Your task to perform on an android device: Add logitech g933 to the cart on bestbuy, then select checkout. Image 0: 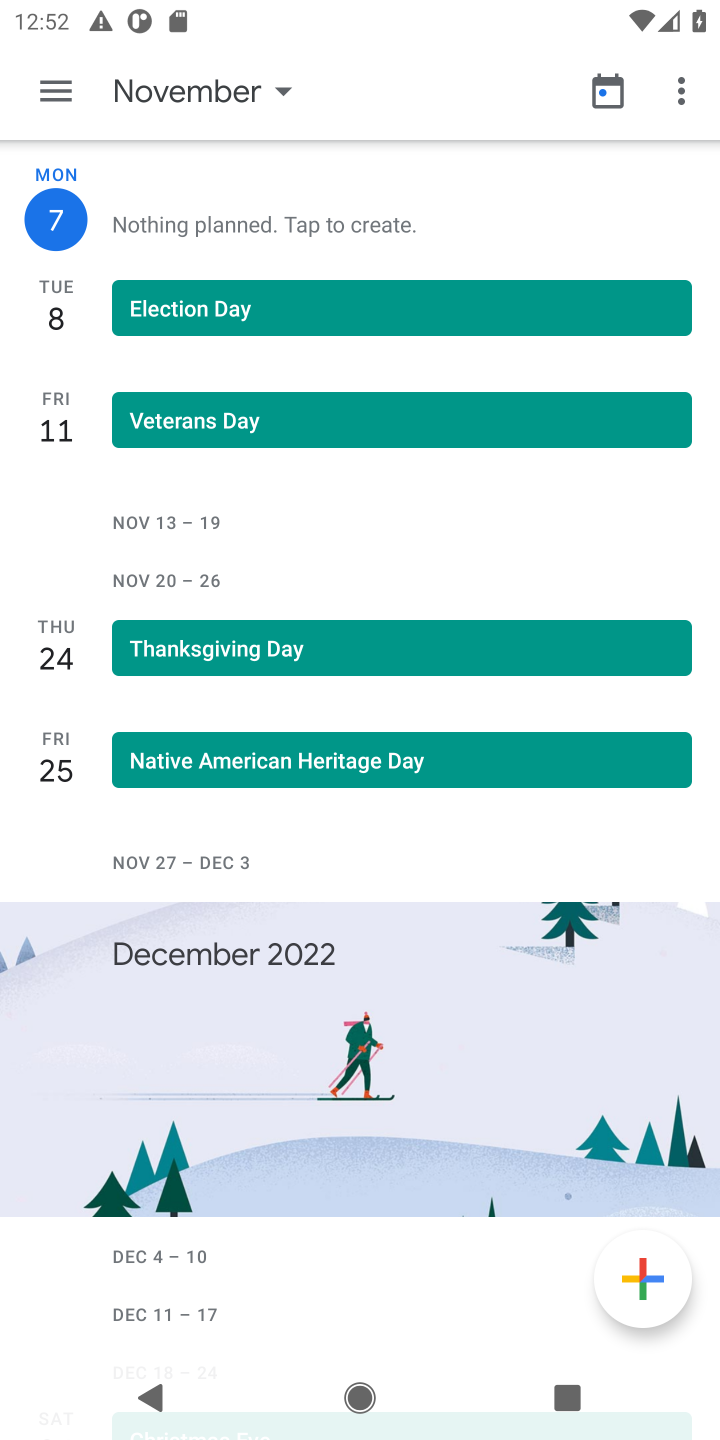
Step 0: press home button
Your task to perform on an android device: Add logitech g933 to the cart on bestbuy, then select checkout. Image 1: 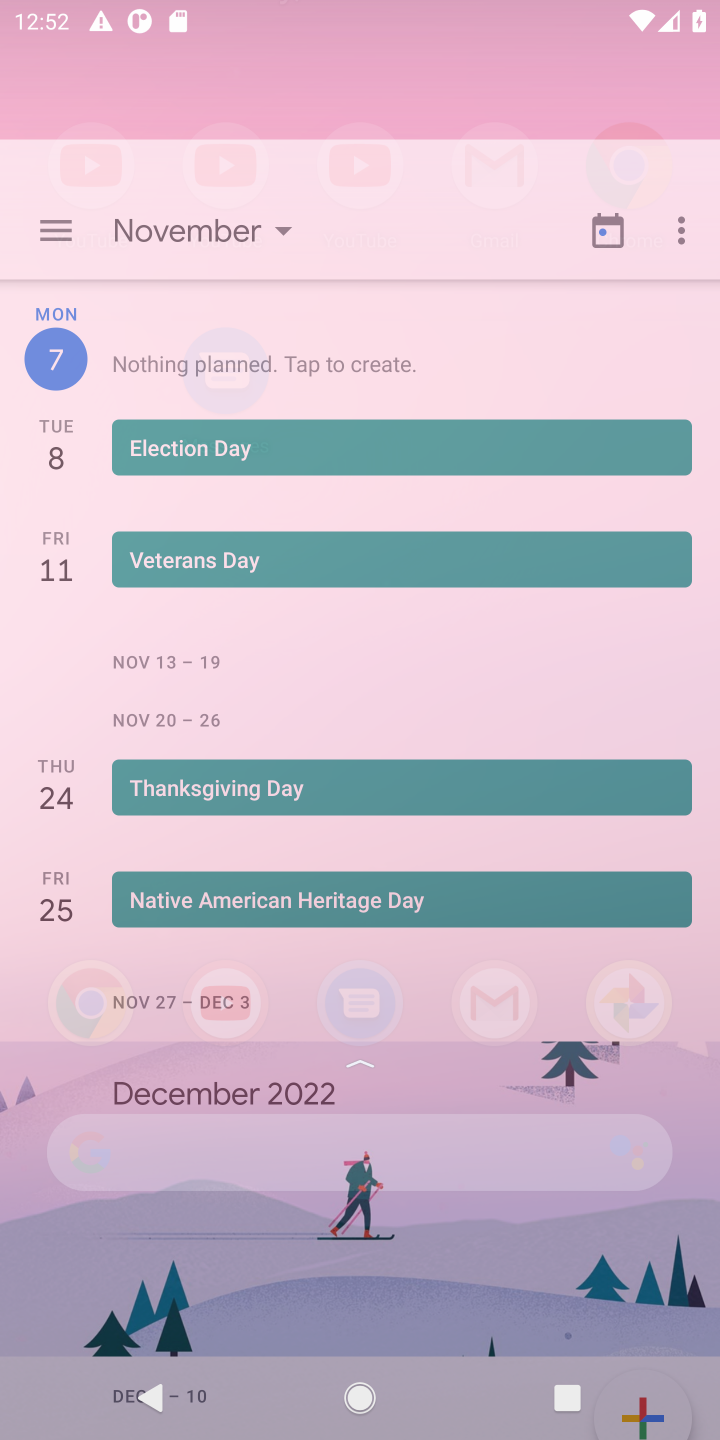
Step 1: press home button
Your task to perform on an android device: Add logitech g933 to the cart on bestbuy, then select checkout. Image 2: 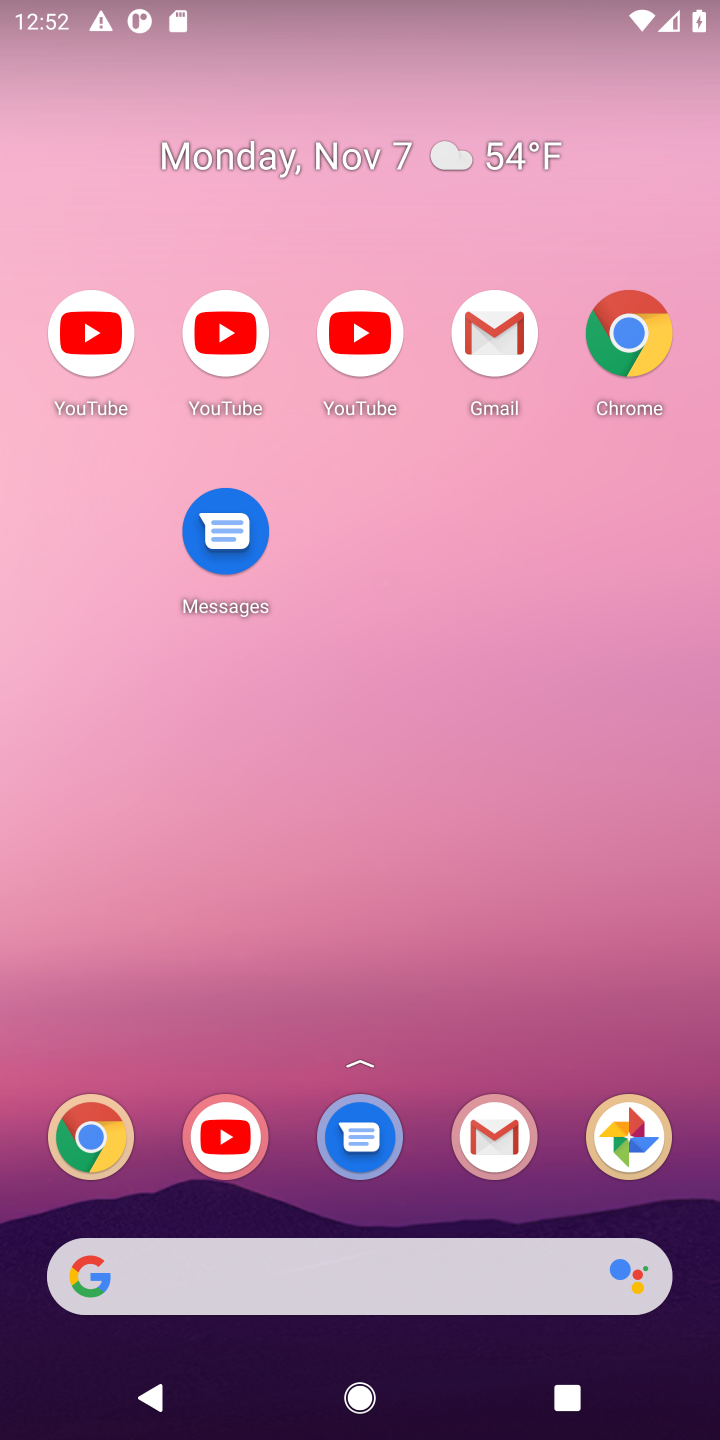
Step 2: drag from (424, 1202) to (515, 132)
Your task to perform on an android device: Add logitech g933 to the cart on bestbuy, then select checkout. Image 3: 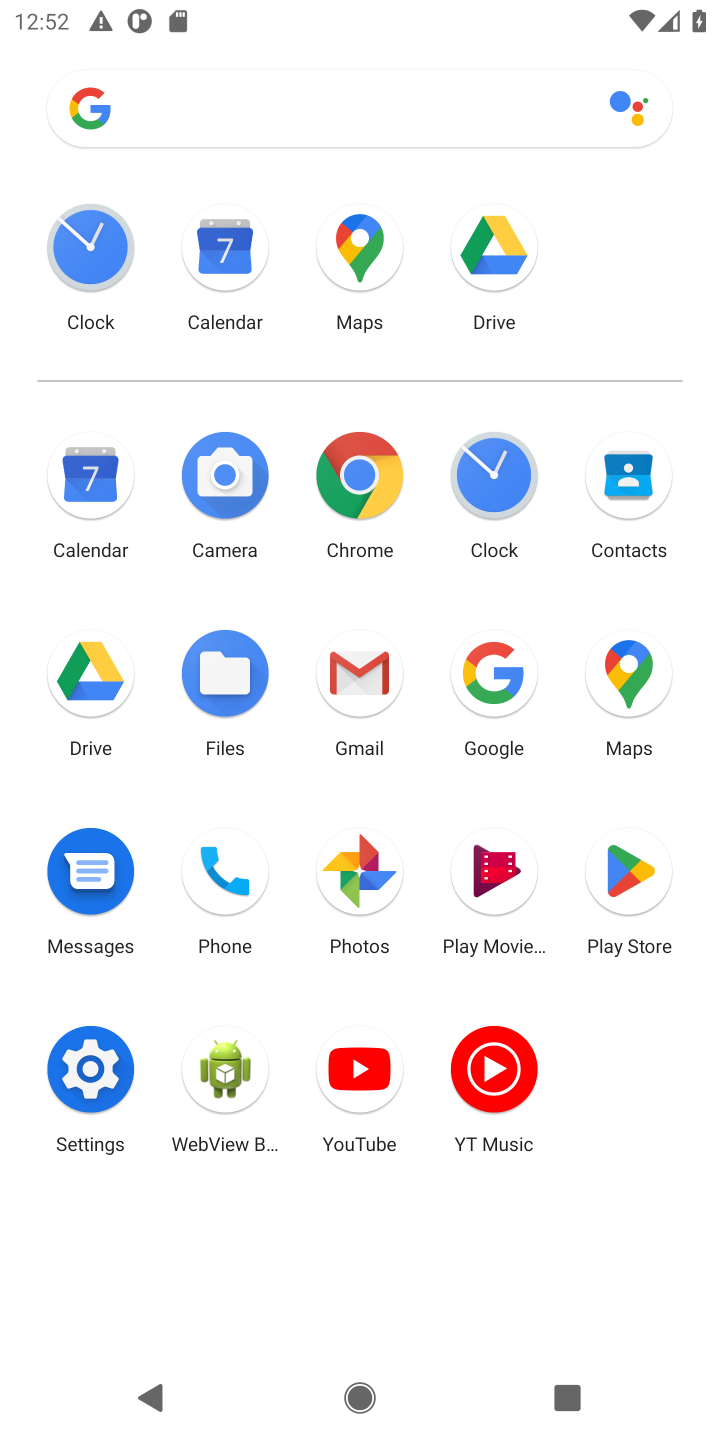
Step 3: click (358, 485)
Your task to perform on an android device: Add logitech g933 to the cart on bestbuy, then select checkout. Image 4: 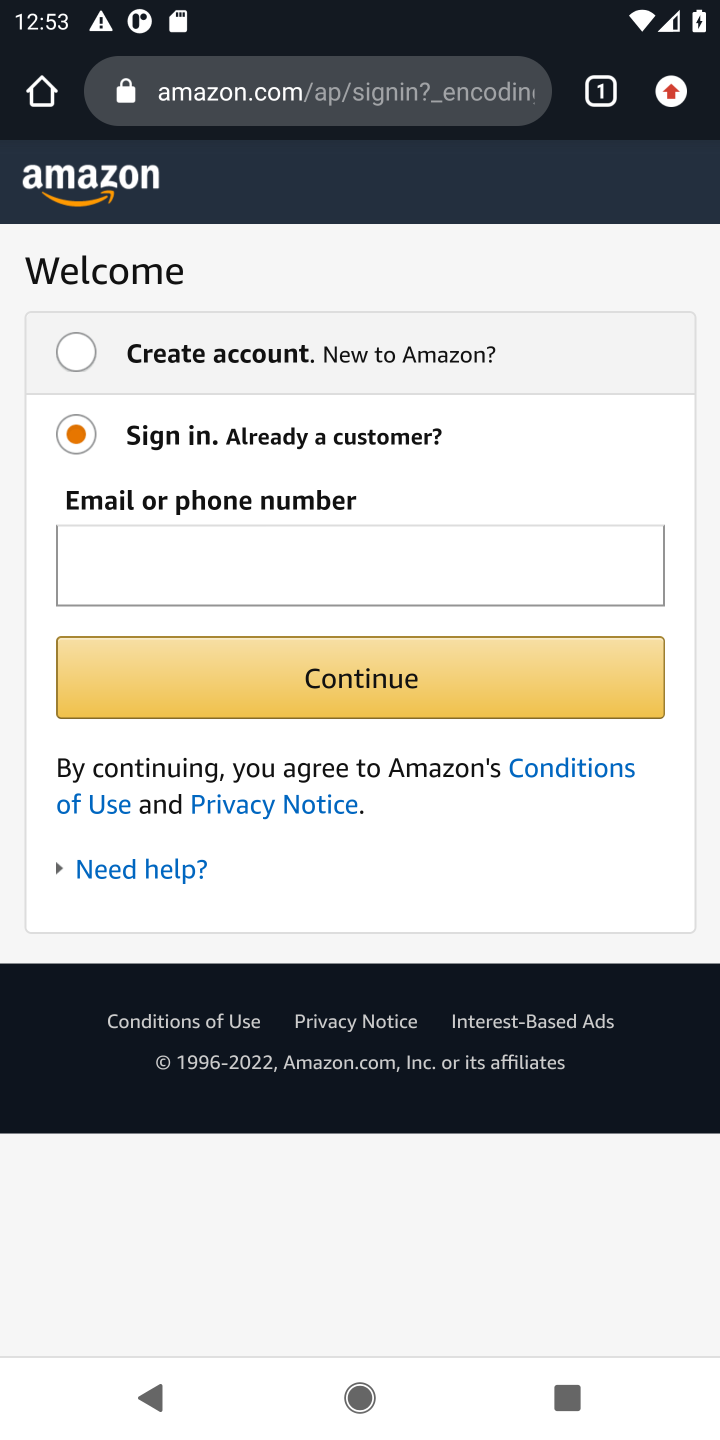
Step 4: click (401, 85)
Your task to perform on an android device: Add logitech g933 to the cart on bestbuy, then select checkout. Image 5: 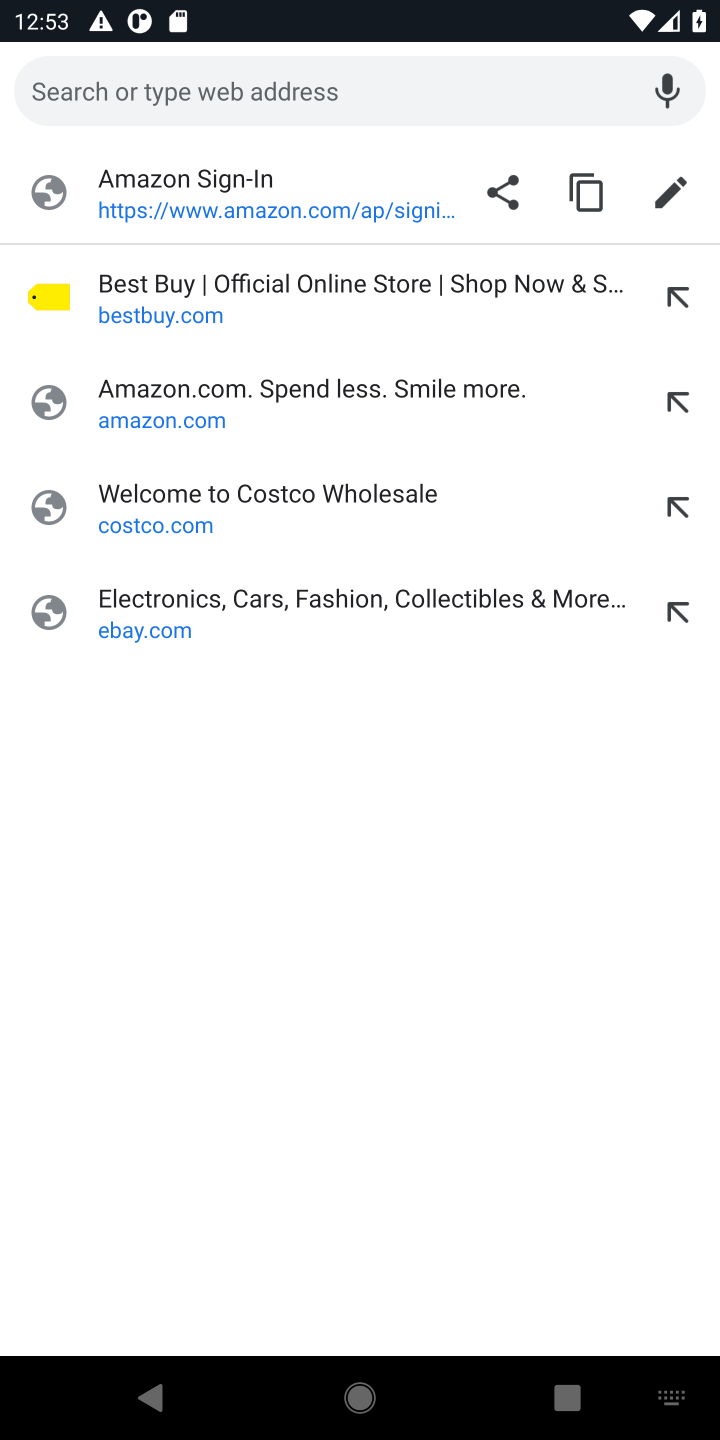
Step 5: type "bestbuy.com"
Your task to perform on an android device: Add logitech g933 to the cart on bestbuy, then select checkout. Image 6: 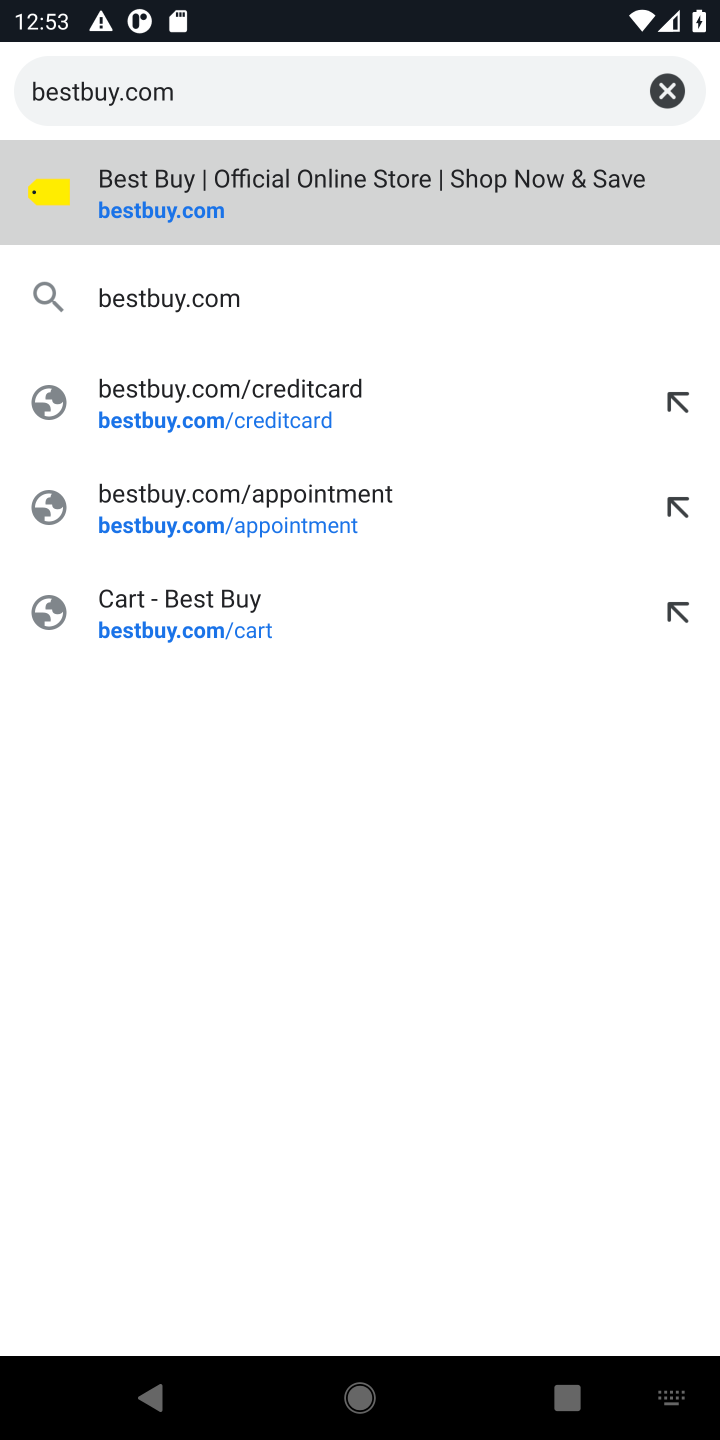
Step 6: press enter
Your task to perform on an android device: Add logitech g933 to the cart on bestbuy, then select checkout. Image 7: 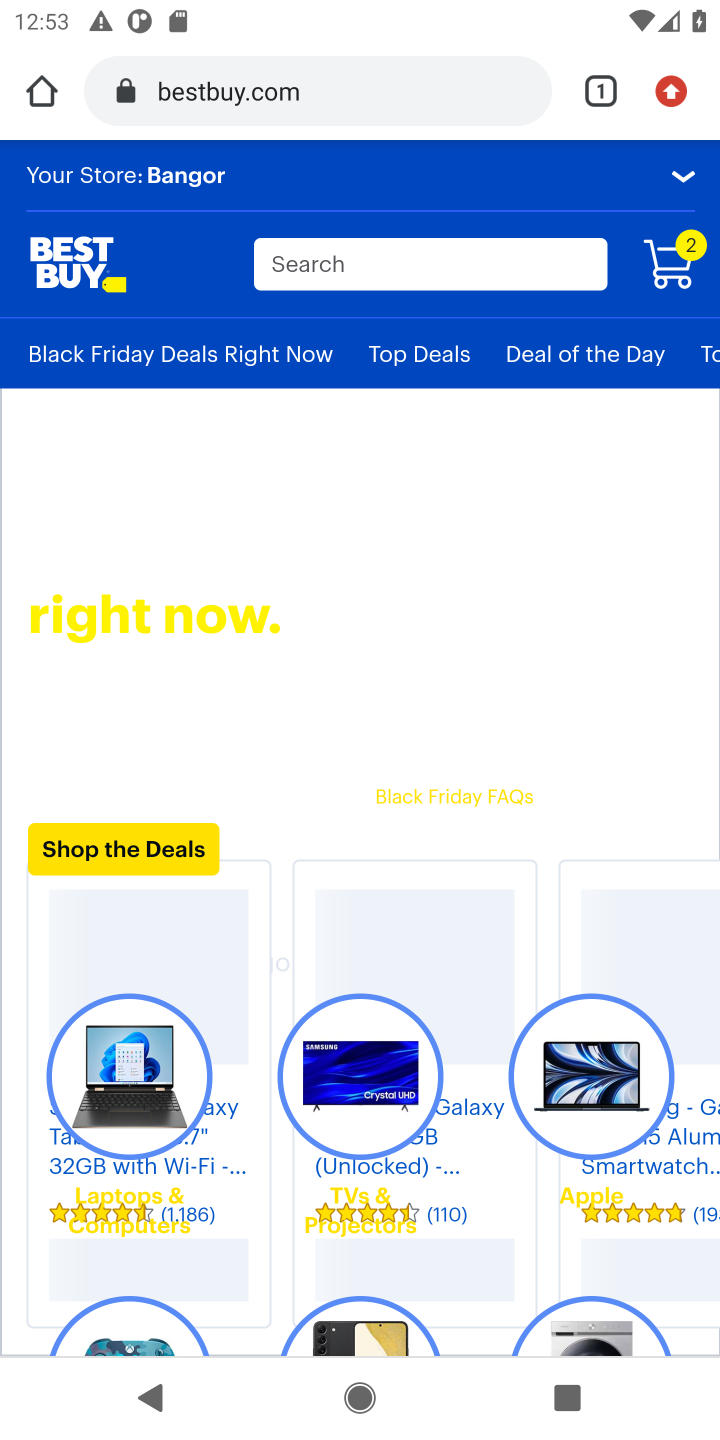
Step 7: click (479, 264)
Your task to perform on an android device: Add logitech g933 to the cart on bestbuy, then select checkout. Image 8: 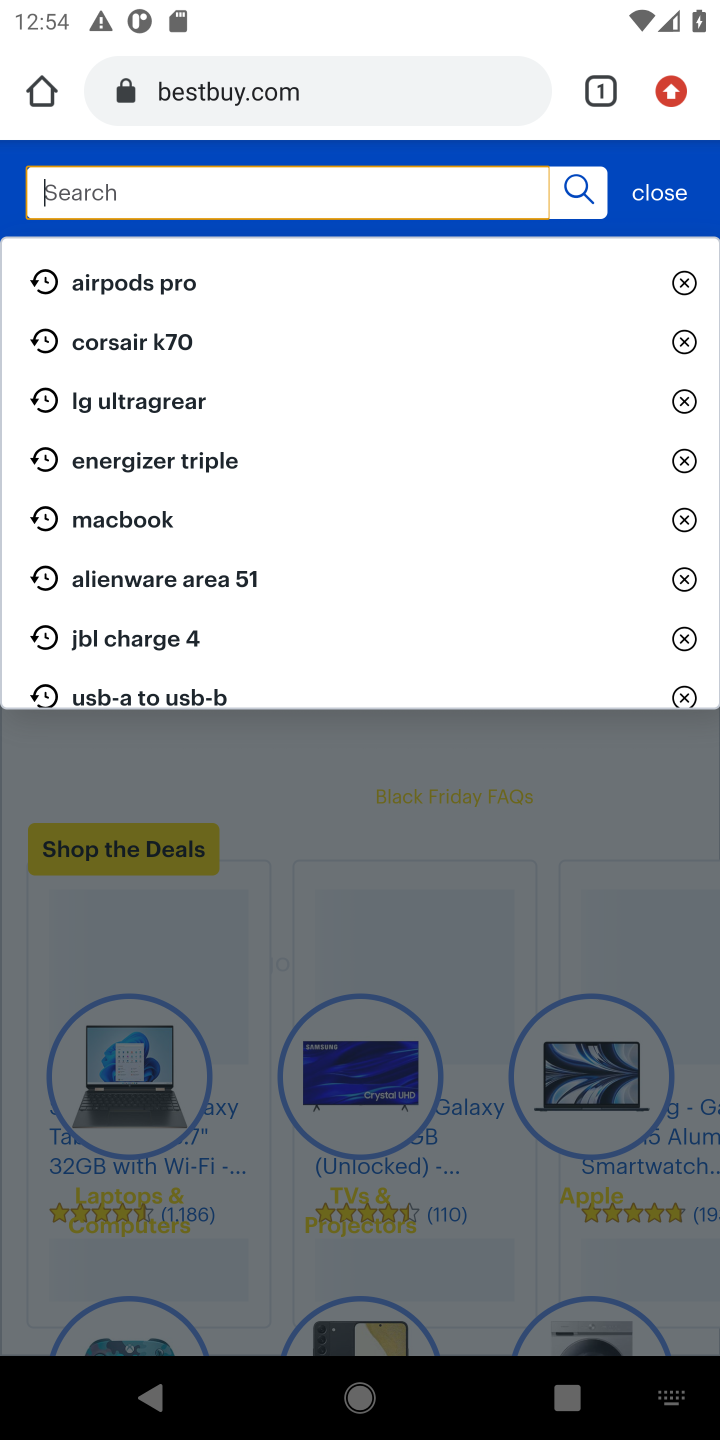
Step 8: type "logitech g933"
Your task to perform on an android device: Add logitech g933 to the cart on bestbuy, then select checkout. Image 9: 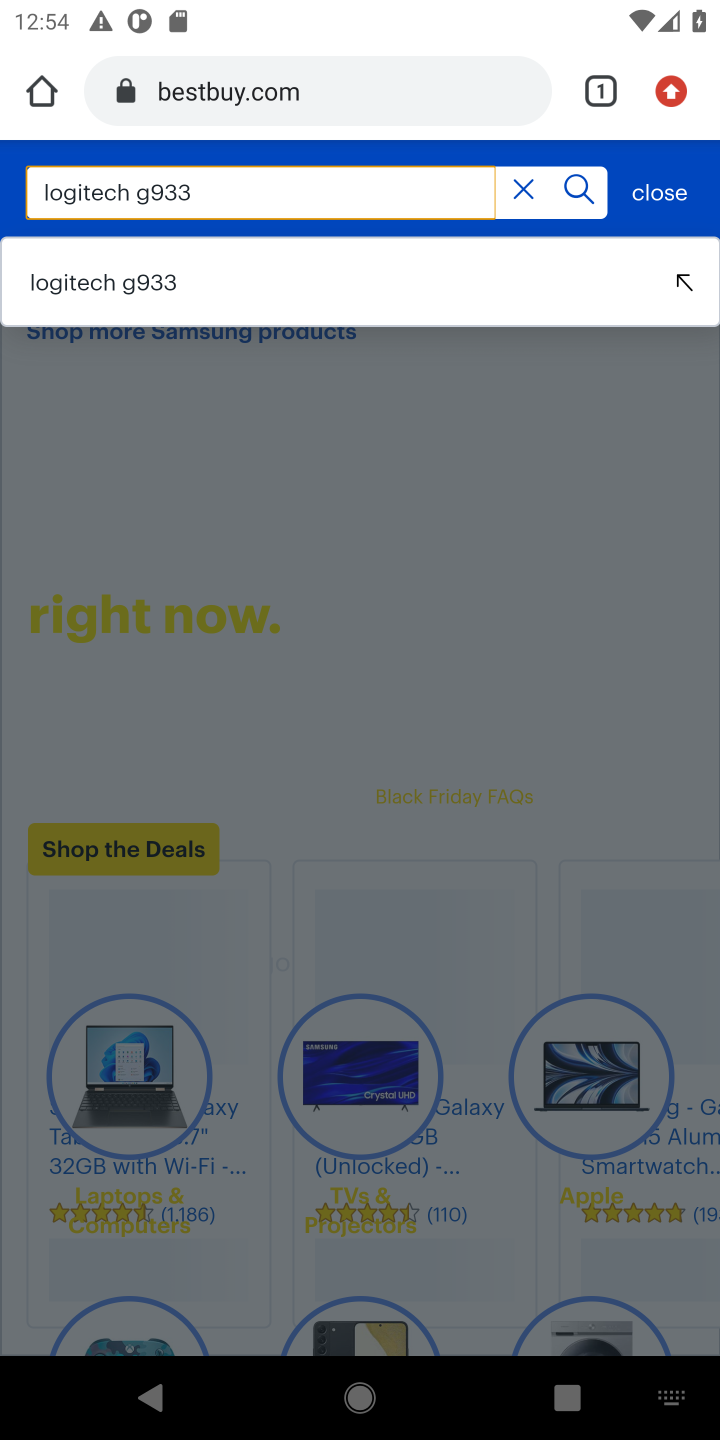
Step 9: press enter
Your task to perform on an android device: Add logitech g933 to the cart on bestbuy, then select checkout. Image 10: 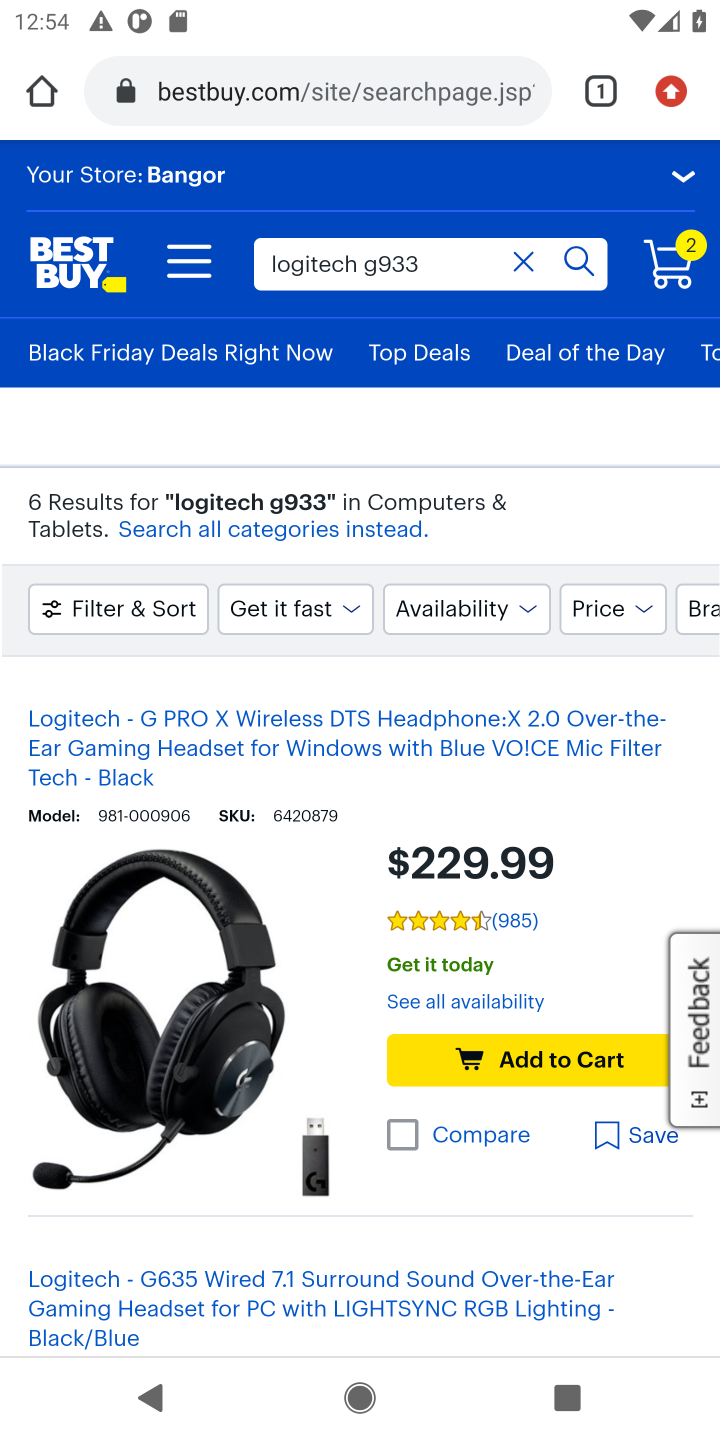
Step 10: click (585, 1049)
Your task to perform on an android device: Add logitech g933 to the cart on bestbuy, then select checkout. Image 11: 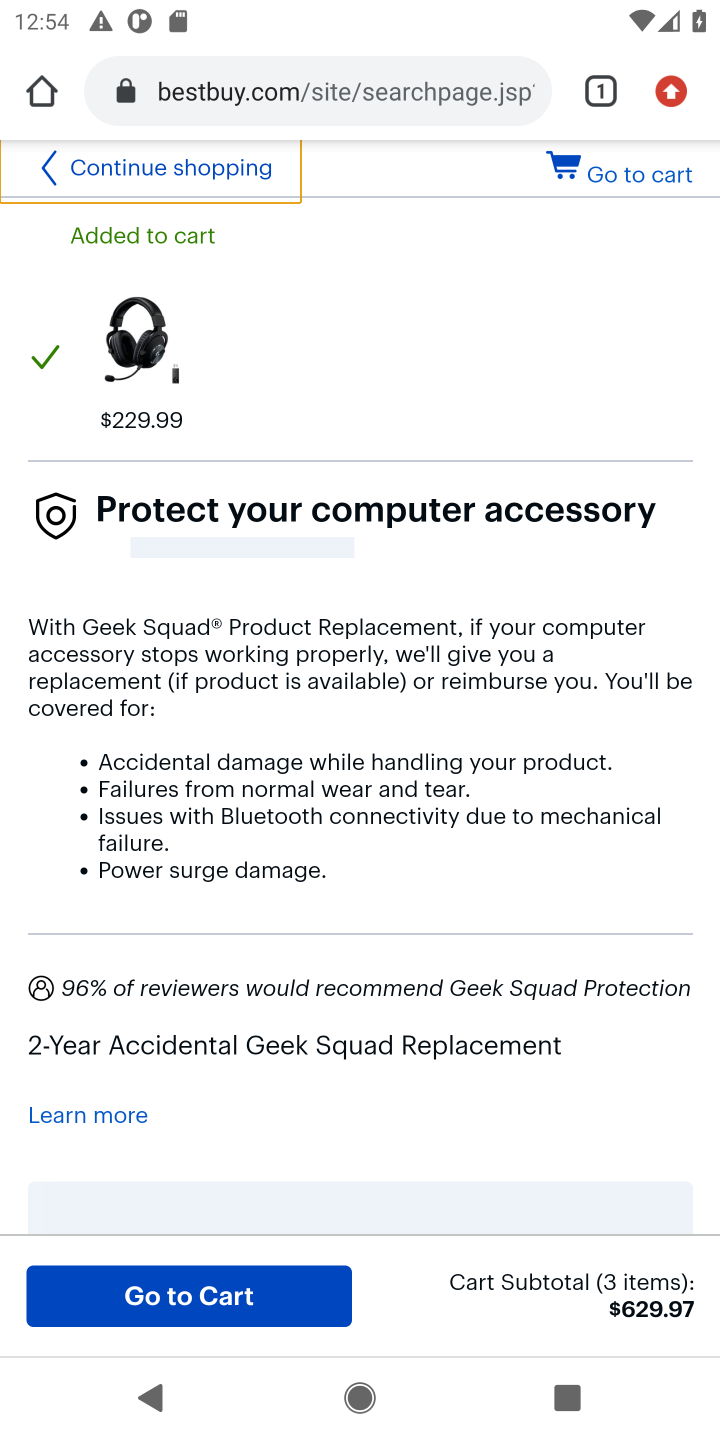
Step 11: click (207, 1291)
Your task to perform on an android device: Add logitech g933 to the cart on bestbuy, then select checkout. Image 12: 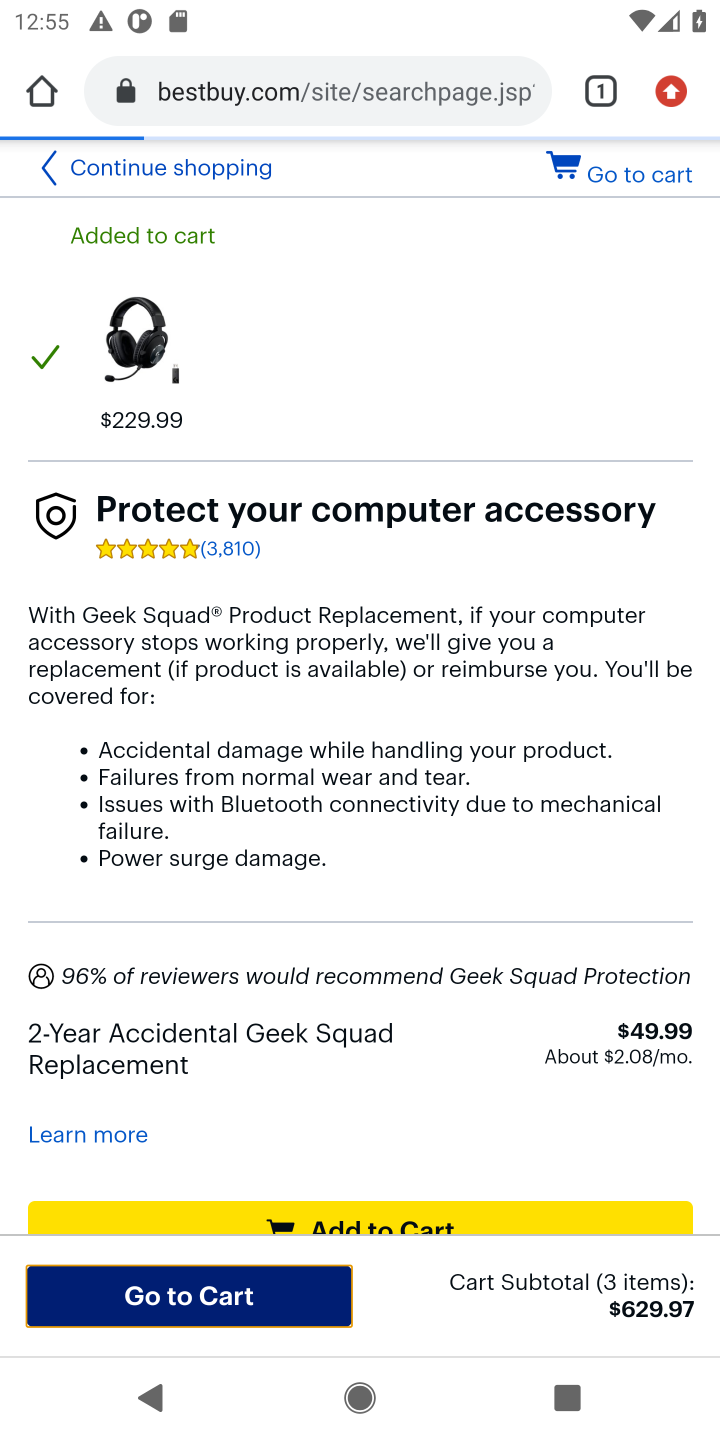
Step 12: drag from (558, 1096) to (491, 204)
Your task to perform on an android device: Add logitech g933 to the cart on bestbuy, then select checkout. Image 13: 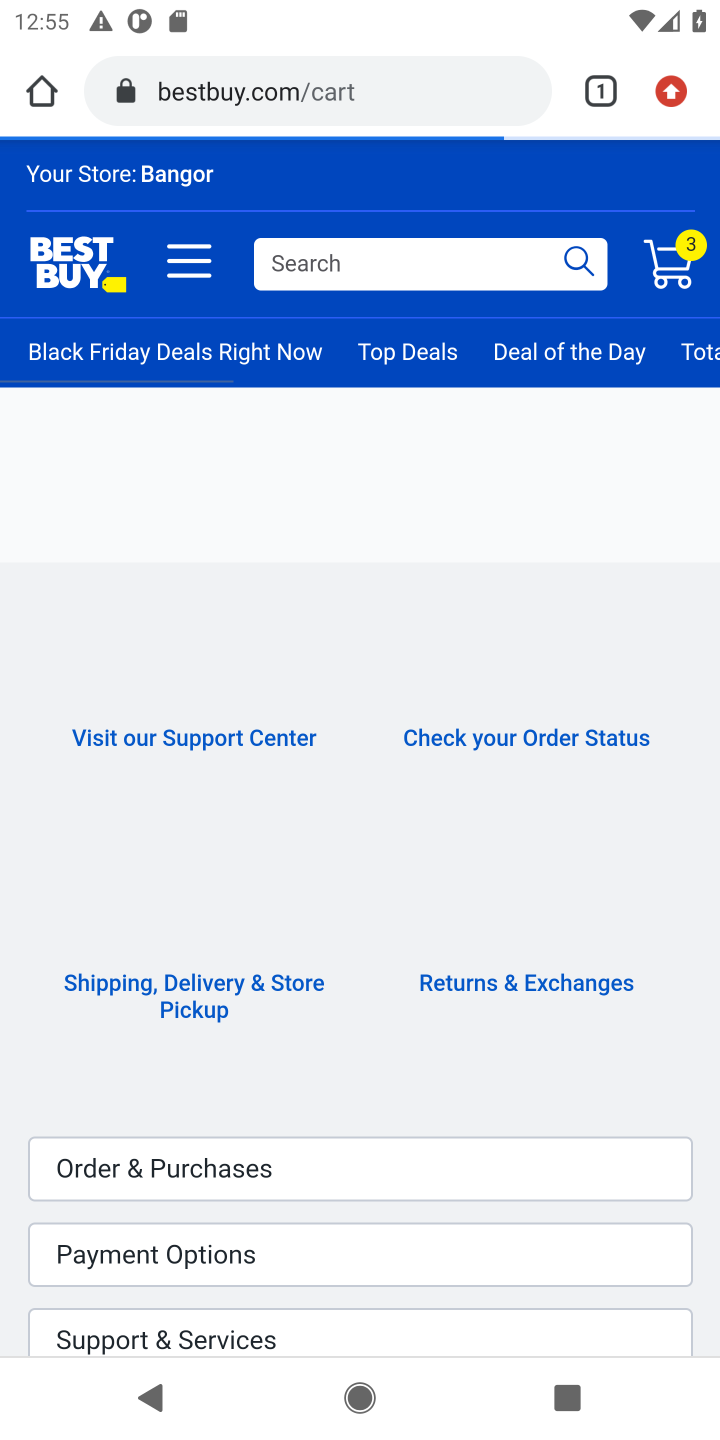
Step 13: drag from (433, 1144) to (490, 657)
Your task to perform on an android device: Add logitech g933 to the cart on bestbuy, then select checkout. Image 14: 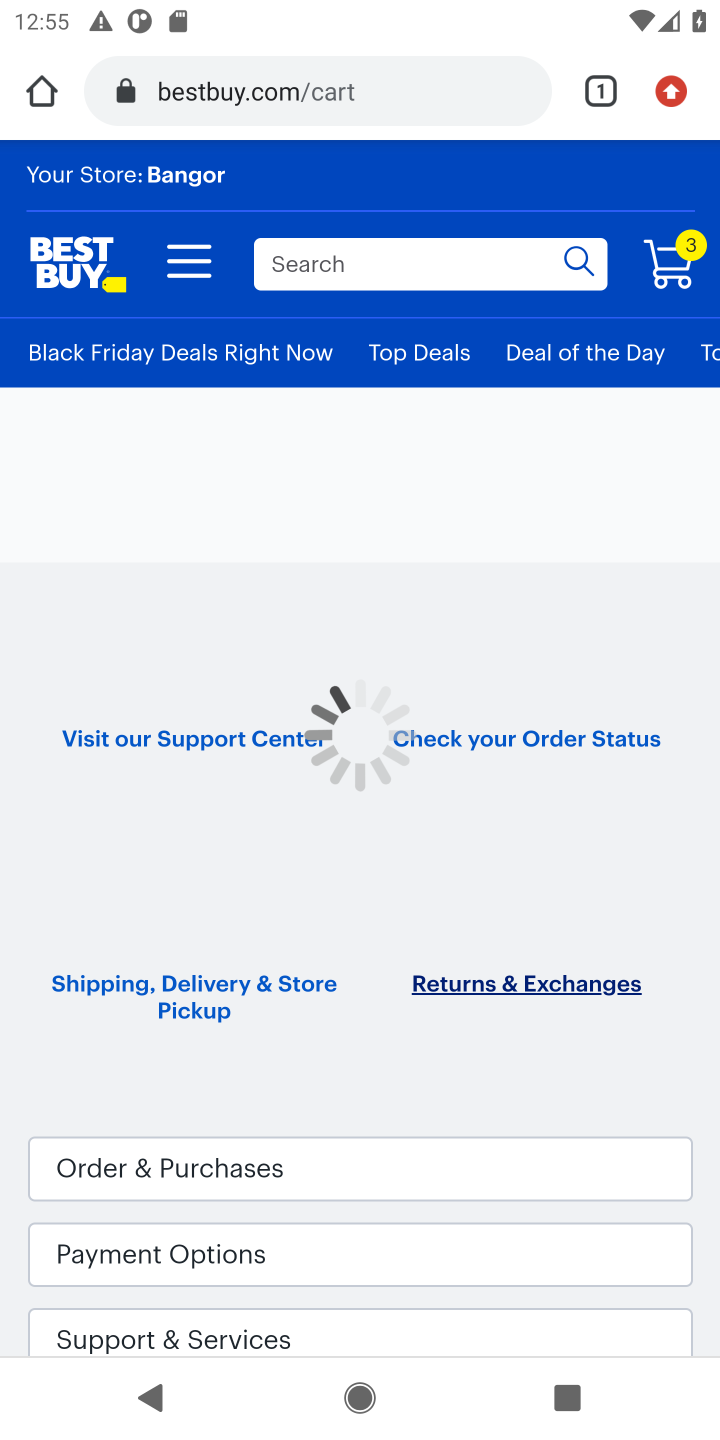
Step 14: drag from (481, 461) to (496, 1034)
Your task to perform on an android device: Add logitech g933 to the cart on bestbuy, then select checkout. Image 15: 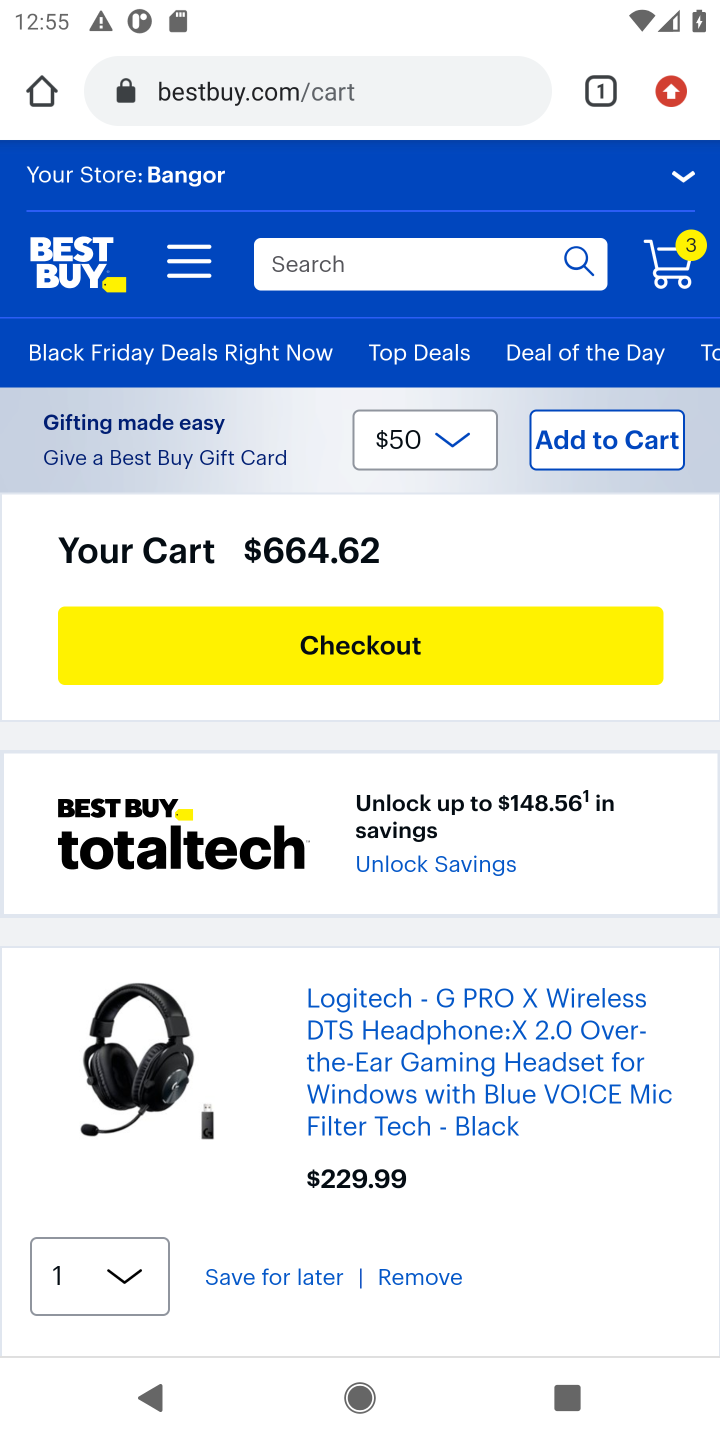
Step 15: click (491, 648)
Your task to perform on an android device: Add logitech g933 to the cart on bestbuy, then select checkout. Image 16: 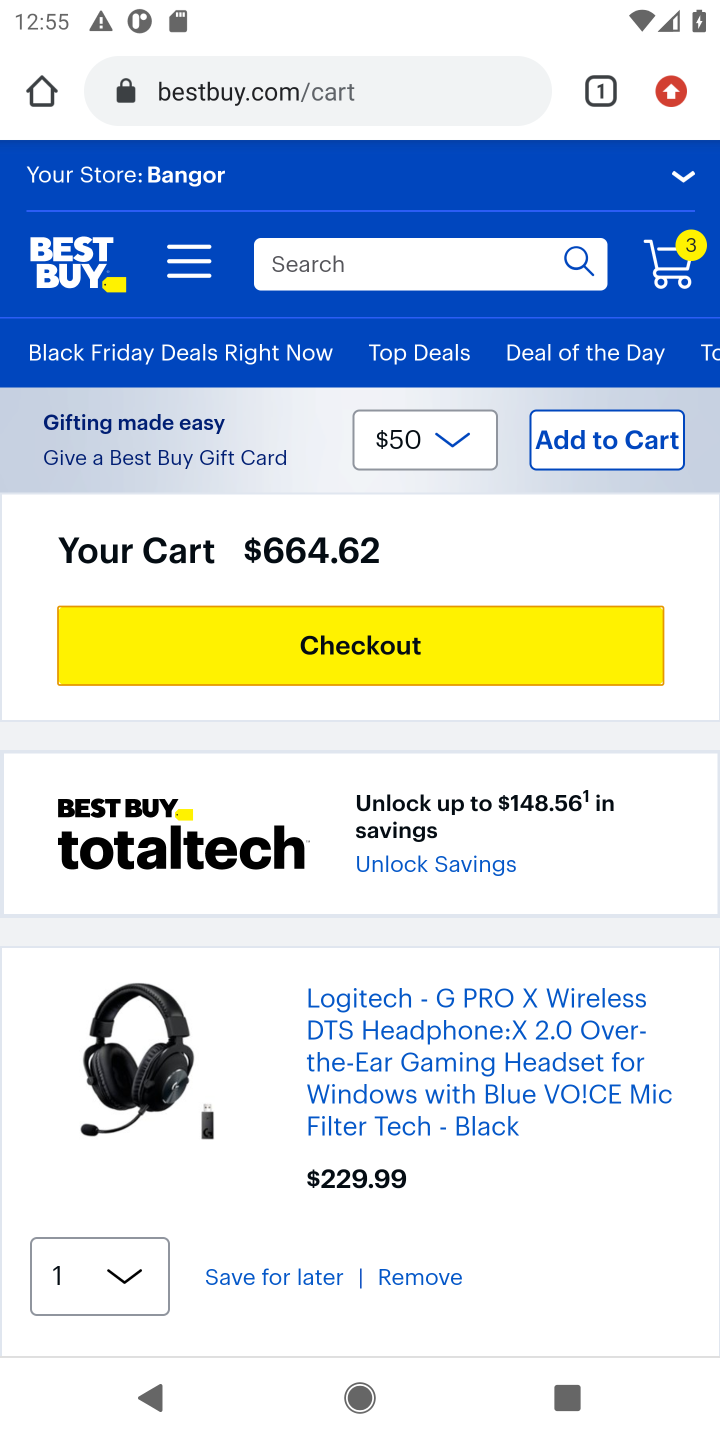
Step 16: click (510, 641)
Your task to perform on an android device: Add logitech g933 to the cart on bestbuy, then select checkout. Image 17: 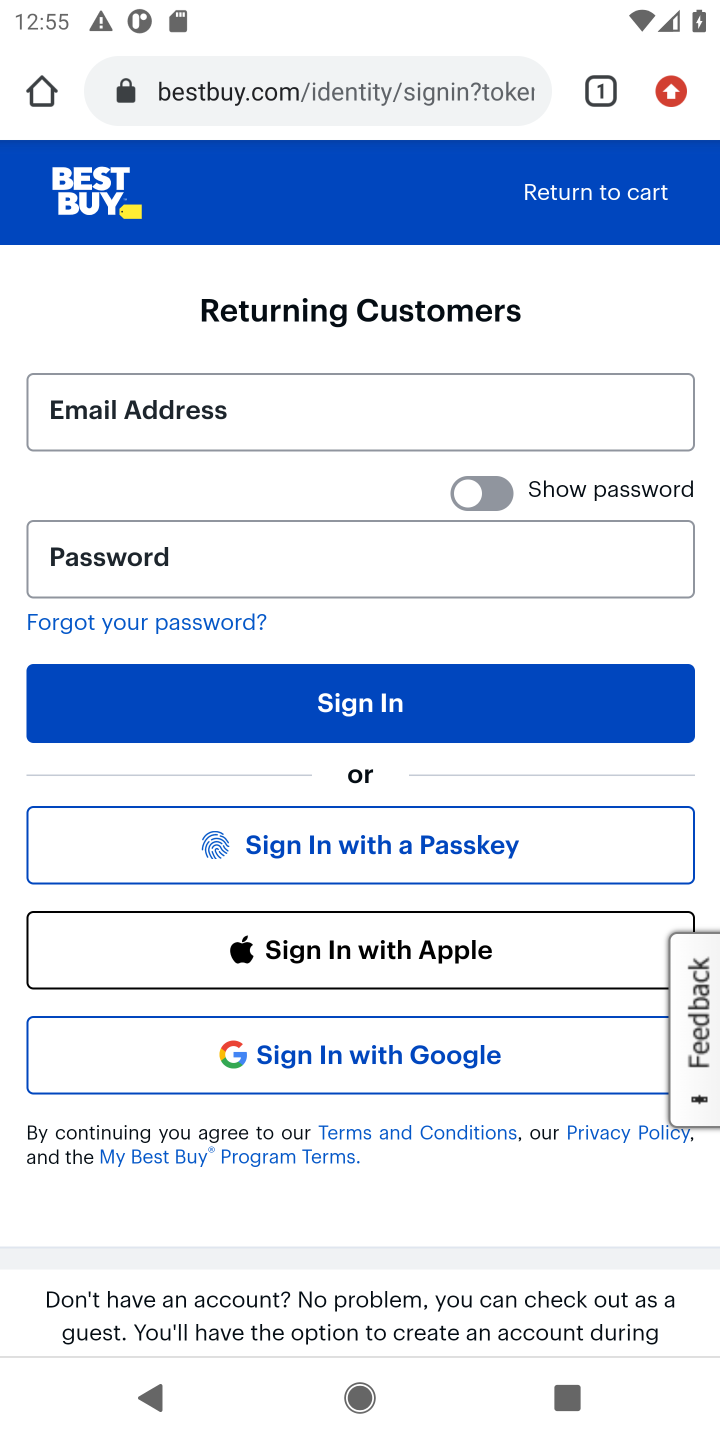
Step 17: task complete